Your task to perform on an android device: make emails show in primary in the gmail app Image 0: 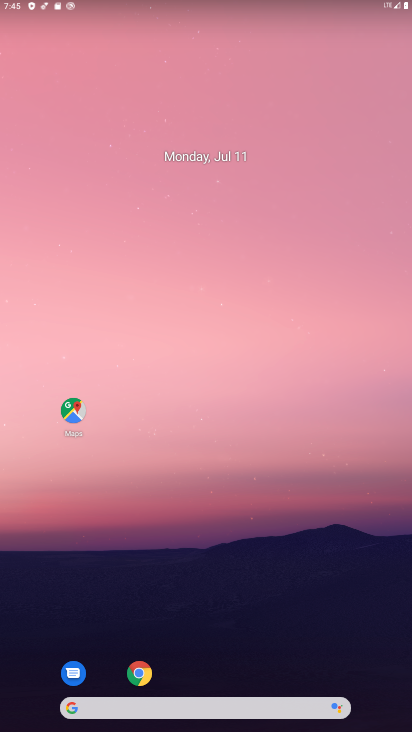
Step 0: drag from (198, 688) to (196, 445)
Your task to perform on an android device: make emails show in primary in the gmail app Image 1: 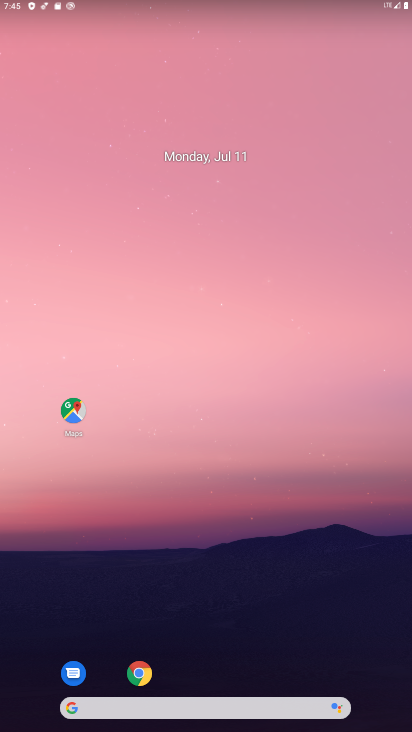
Step 1: click (205, 670)
Your task to perform on an android device: make emails show in primary in the gmail app Image 2: 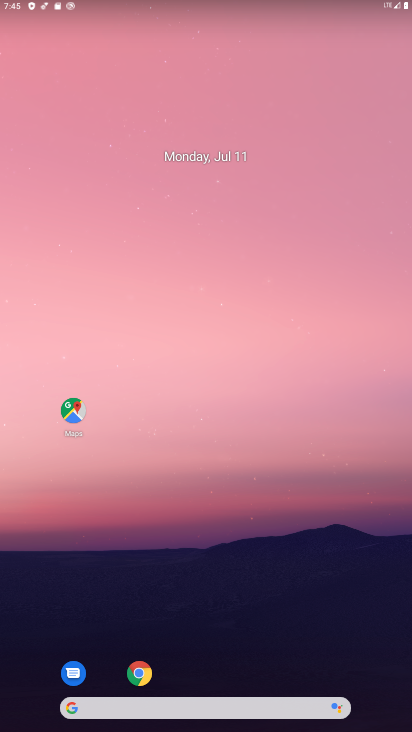
Step 2: drag from (206, 700) to (201, 331)
Your task to perform on an android device: make emails show in primary in the gmail app Image 3: 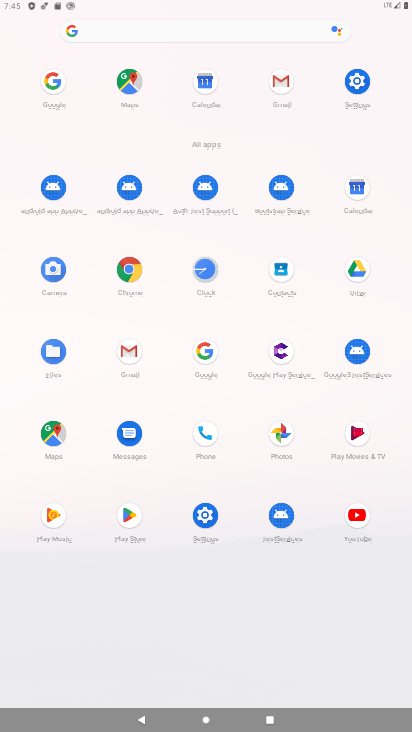
Step 3: click (133, 350)
Your task to perform on an android device: make emails show in primary in the gmail app Image 4: 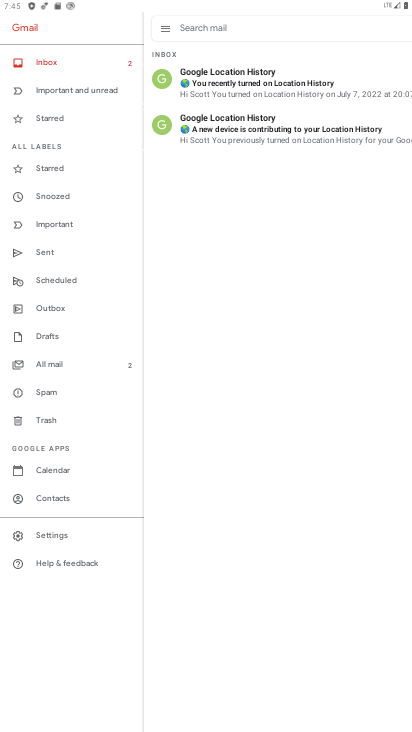
Step 4: click (60, 536)
Your task to perform on an android device: make emails show in primary in the gmail app Image 5: 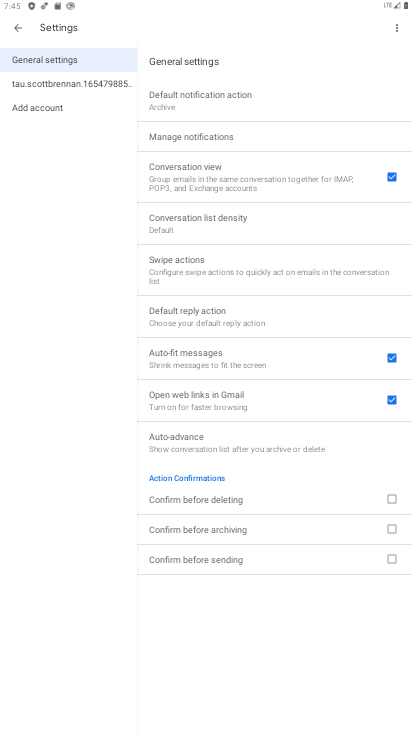
Step 5: click (48, 92)
Your task to perform on an android device: make emails show in primary in the gmail app Image 6: 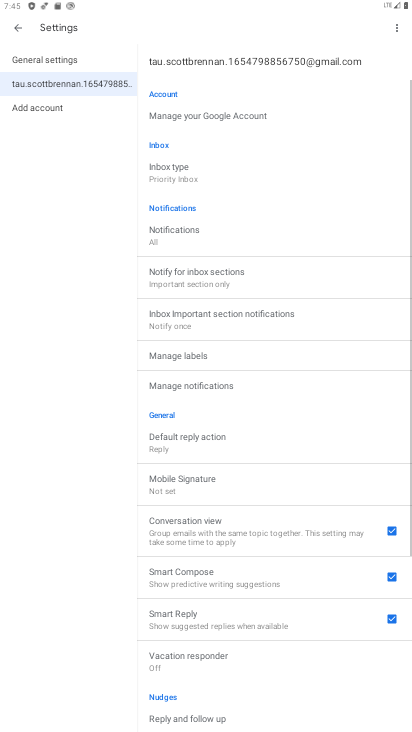
Step 6: click (160, 178)
Your task to perform on an android device: make emails show in primary in the gmail app Image 7: 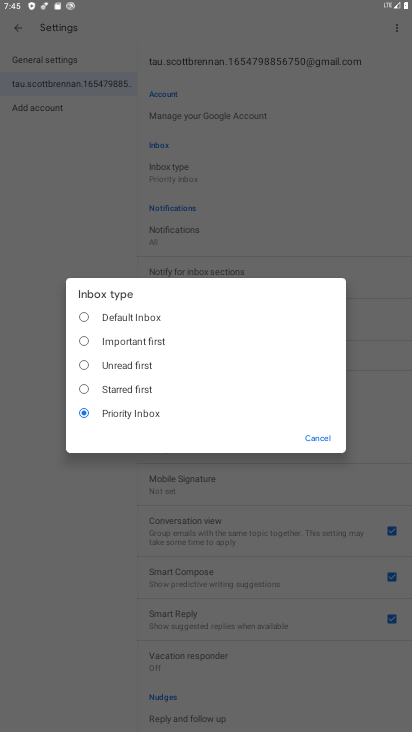
Step 7: click (143, 315)
Your task to perform on an android device: make emails show in primary in the gmail app Image 8: 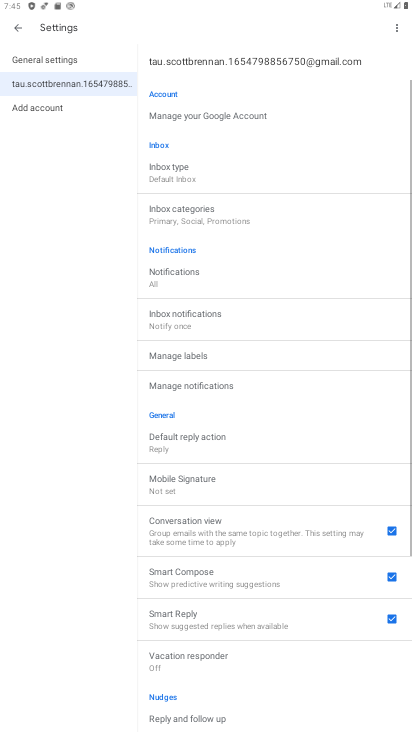
Step 8: click (201, 216)
Your task to perform on an android device: make emails show in primary in the gmail app Image 9: 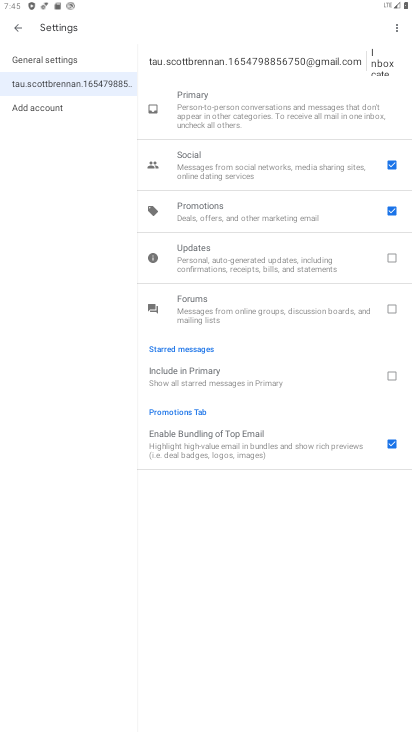
Step 9: click (396, 208)
Your task to perform on an android device: make emails show in primary in the gmail app Image 10: 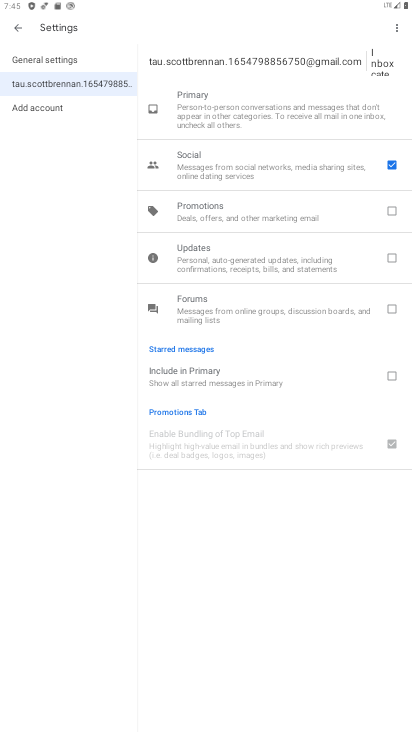
Step 10: click (387, 164)
Your task to perform on an android device: make emails show in primary in the gmail app Image 11: 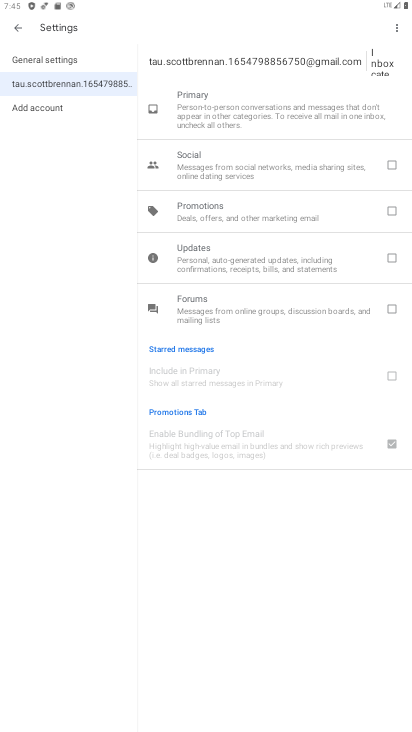
Step 11: click (20, 29)
Your task to perform on an android device: make emails show in primary in the gmail app Image 12: 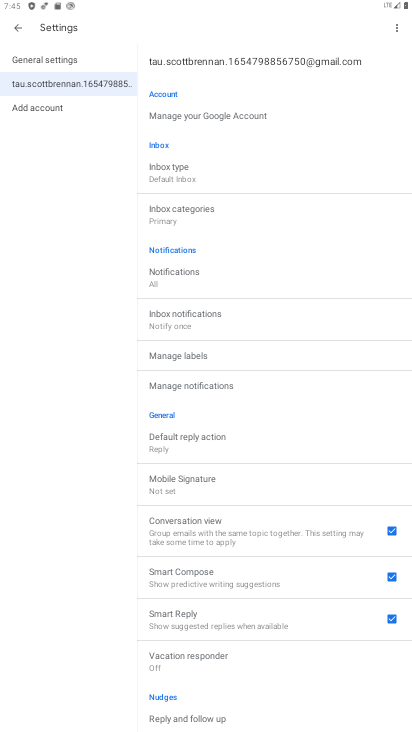
Step 12: task complete